Your task to perform on an android device: View the shopping cart on amazon. Search for beats solo 3 on amazon, select the first entry, and add it to the cart. Image 0: 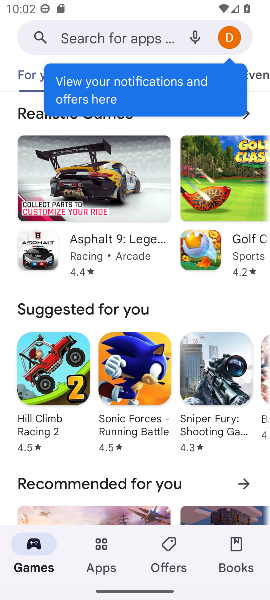
Step 0: press home button
Your task to perform on an android device: View the shopping cart on amazon. Search for beats solo 3 on amazon, select the first entry, and add it to the cart. Image 1: 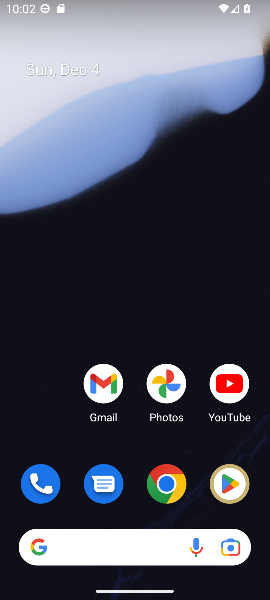
Step 1: click (165, 488)
Your task to perform on an android device: View the shopping cart on amazon. Search for beats solo 3 on amazon, select the first entry, and add it to the cart. Image 2: 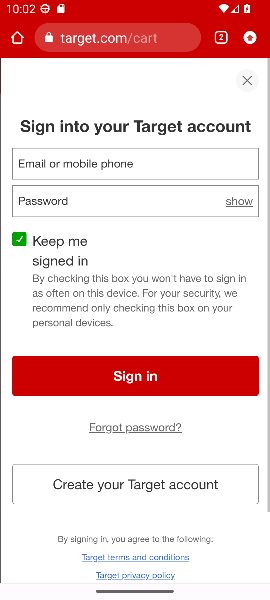
Step 2: click (121, 42)
Your task to perform on an android device: View the shopping cart on amazon. Search for beats solo 3 on amazon, select the first entry, and add it to the cart. Image 3: 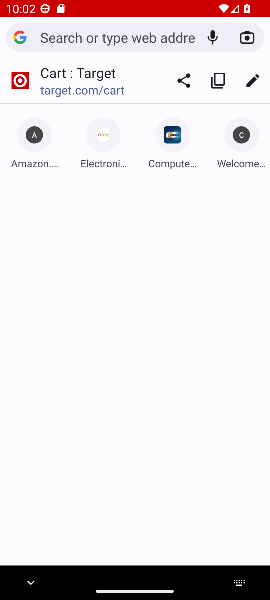
Step 3: click (31, 160)
Your task to perform on an android device: View the shopping cart on amazon. Search for beats solo 3 on amazon, select the first entry, and add it to the cart. Image 4: 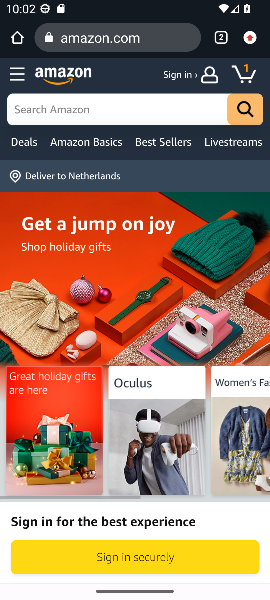
Step 4: click (248, 69)
Your task to perform on an android device: View the shopping cart on amazon. Search for beats solo 3 on amazon, select the first entry, and add it to the cart. Image 5: 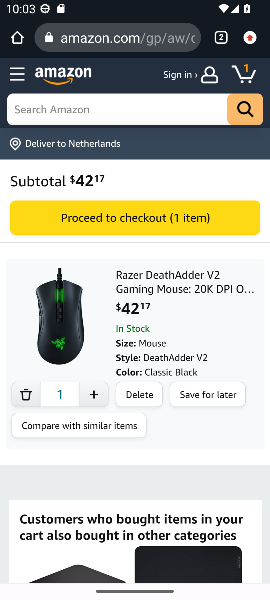
Step 5: click (79, 108)
Your task to perform on an android device: View the shopping cart on amazon. Search for beats solo 3 on amazon, select the first entry, and add it to the cart. Image 6: 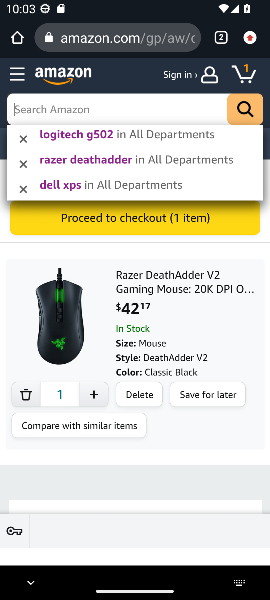
Step 6: type " beats solo 3 "
Your task to perform on an android device: View the shopping cart on amazon. Search for beats solo 3 on amazon, select the first entry, and add it to the cart. Image 7: 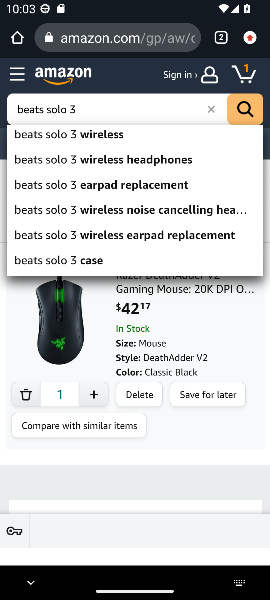
Step 7: click (52, 140)
Your task to perform on an android device: View the shopping cart on amazon. Search for beats solo 3 on amazon, select the first entry, and add it to the cart. Image 8: 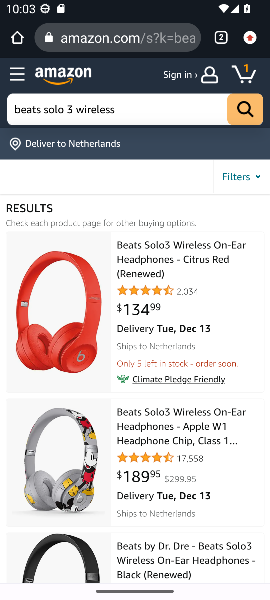
Step 8: click (132, 268)
Your task to perform on an android device: View the shopping cart on amazon. Search for beats solo 3 on amazon, select the first entry, and add it to the cart. Image 9: 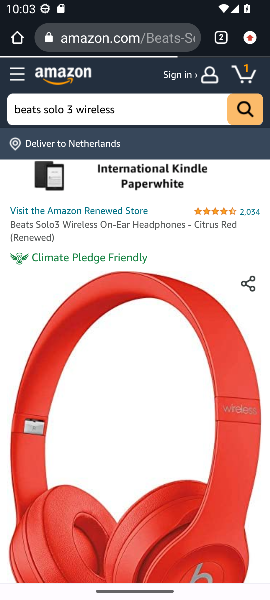
Step 9: drag from (129, 421) to (132, 226)
Your task to perform on an android device: View the shopping cart on amazon. Search for beats solo 3 on amazon, select the first entry, and add it to the cart. Image 10: 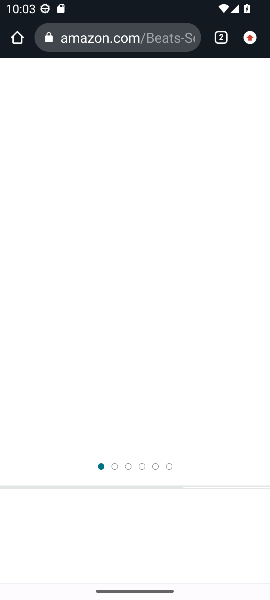
Step 10: drag from (119, 414) to (119, 120)
Your task to perform on an android device: View the shopping cart on amazon. Search for beats solo 3 on amazon, select the first entry, and add it to the cart. Image 11: 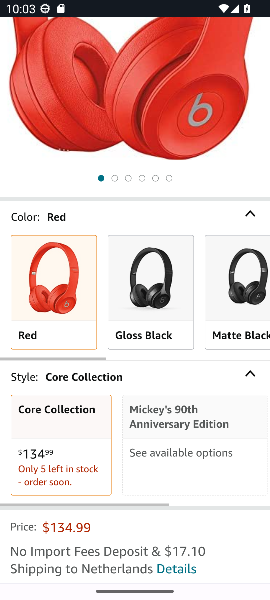
Step 11: drag from (102, 309) to (100, 59)
Your task to perform on an android device: View the shopping cart on amazon. Search for beats solo 3 on amazon, select the first entry, and add it to the cart. Image 12: 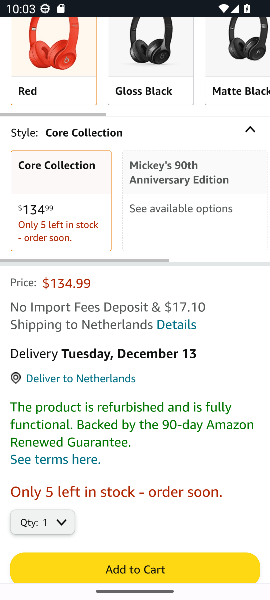
Step 12: drag from (96, 319) to (109, 141)
Your task to perform on an android device: View the shopping cart on amazon. Search for beats solo 3 on amazon, select the first entry, and add it to the cart. Image 13: 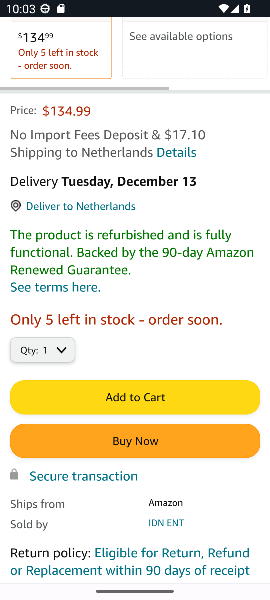
Step 13: click (123, 391)
Your task to perform on an android device: View the shopping cart on amazon. Search for beats solo 3 on amazon, select the first entry, and add it to the cart. Image 14: 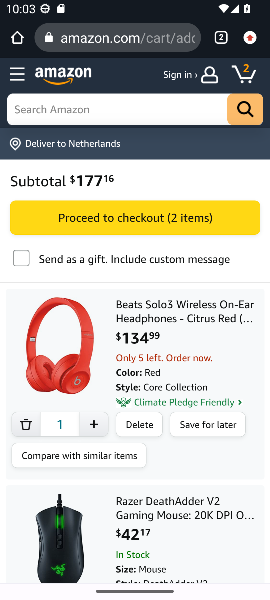
Step 14: task complete